Your task to perform on an android device: Go to internet settings Image 0: 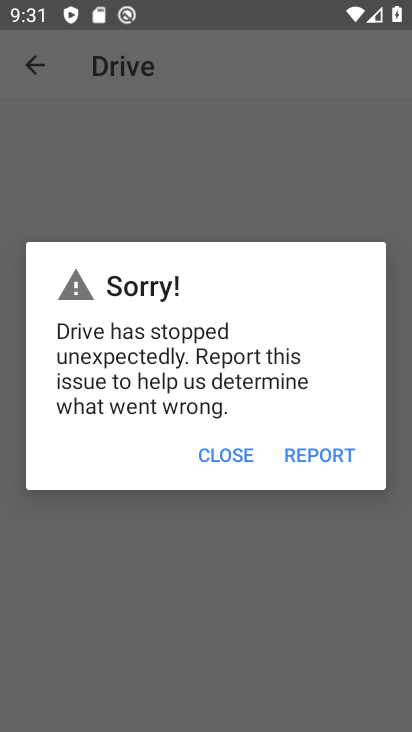
Step 0: press home button
Your task to perform on an android device: Go to internet settings Image 1: 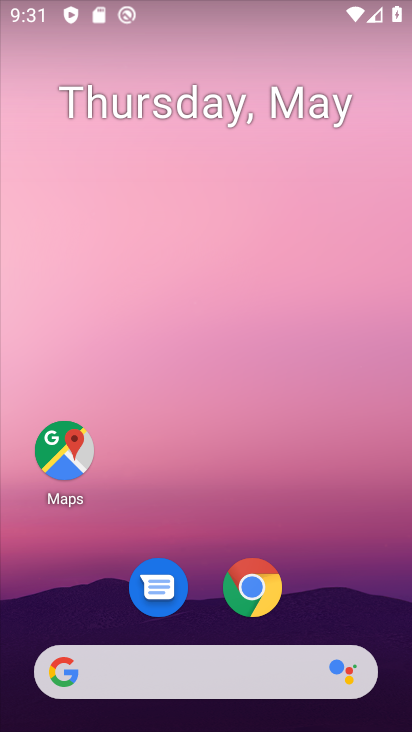
Step 1: drag from (233, 636) to (230, 5)
Your task to perform on an android device: Go to internet settings Image 2: 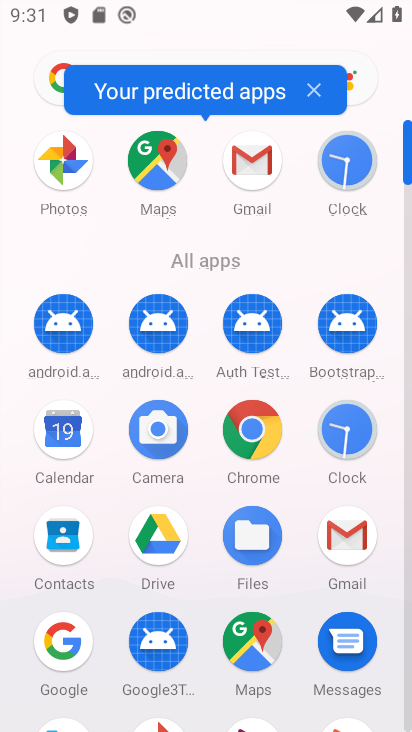
Step 2: drag from (206, 538) to (211, 101)
Your task to perform on an android device: Go to internet settings Image 3: 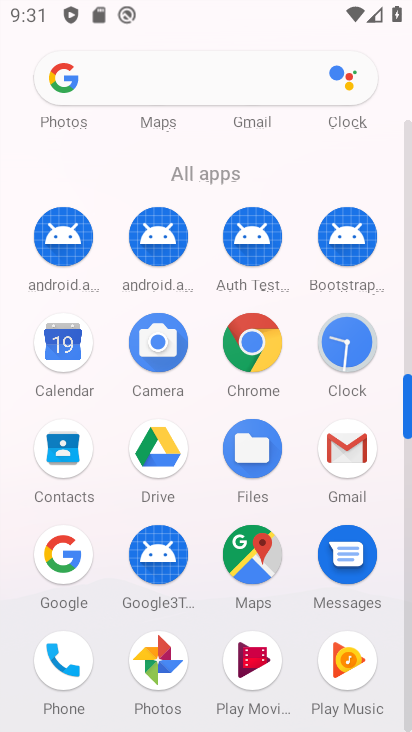
Step 3: click (155, 667)
Your task to perform on an android device: Go to internet settings Image 4: 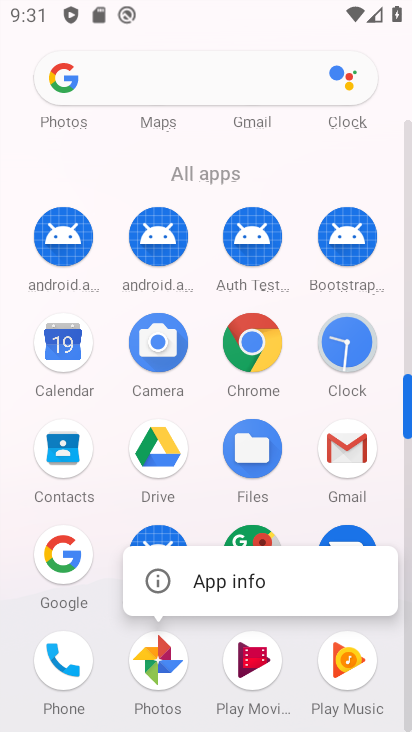
Step 4: drag from (111, 632) to (120, 216)
Your task to perform on an android device: Go to internet settings Image 5: 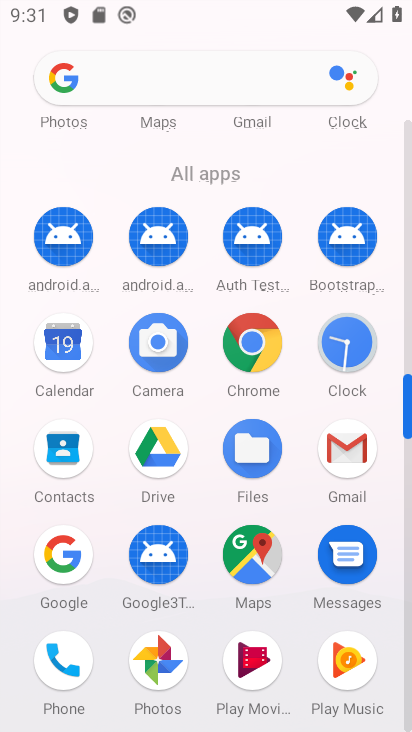
Step 5: drag from (102, 607) to (133, 75)
Your task to perform on an android device: Go to internet settings Image 6: 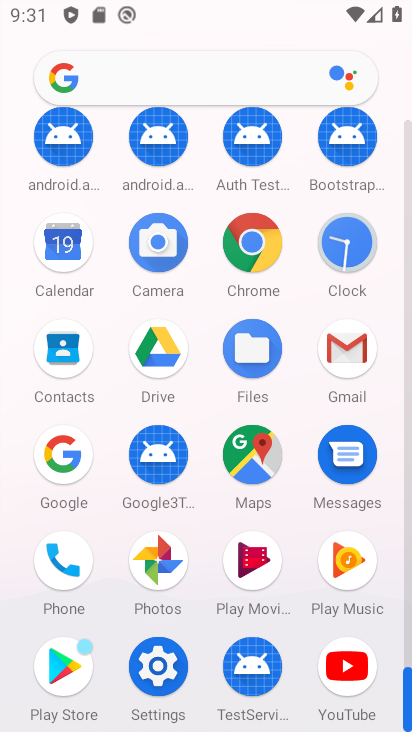
Step 6: click (156, 664)
Your task to perform on an android device: Go to internet settings Image 7: 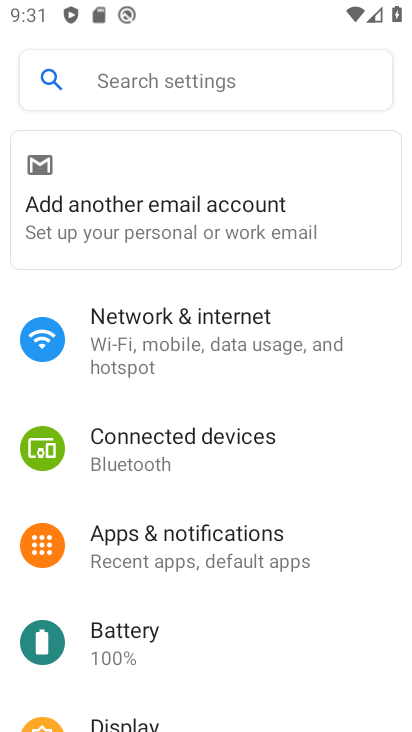
Step 7: click (143, 312)
Your task to perform on an android device: Go to internet settings Image 8: 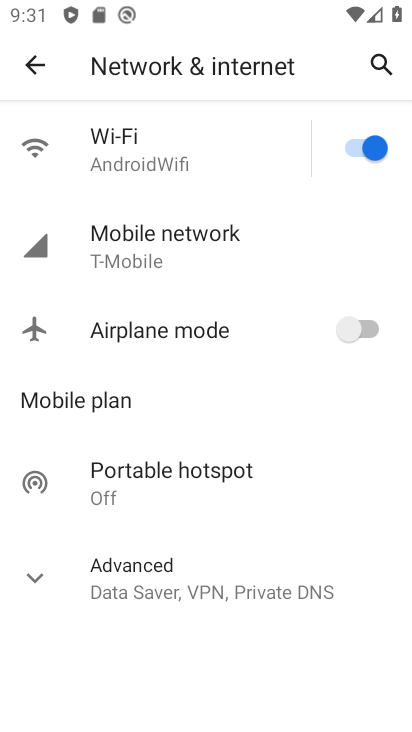
Step 8: click (217, 219)
Your task to perform on an android device: Go to internet settings Image 9: 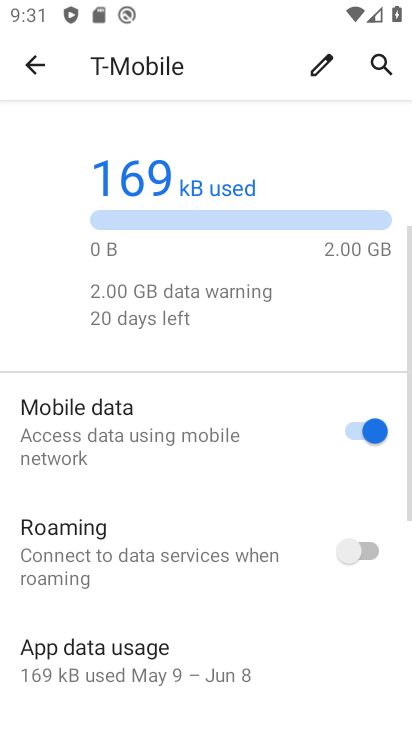
Step 9: task complete